Your task to perform on an android device: toggle notification dots Image 0: 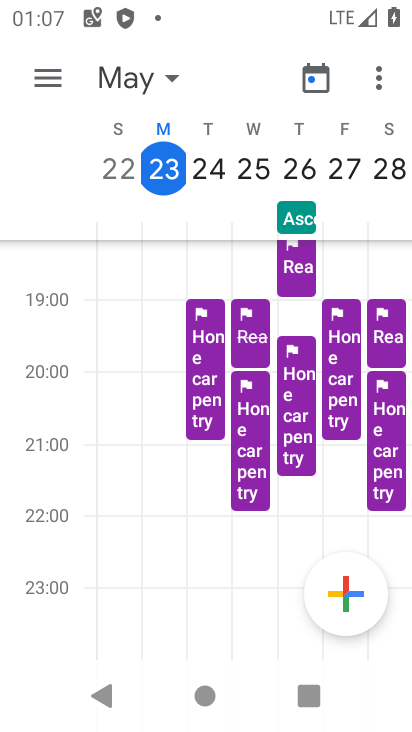
Step 0: press home button
Your task to perform on an android device: toggle notification dots Image 1: 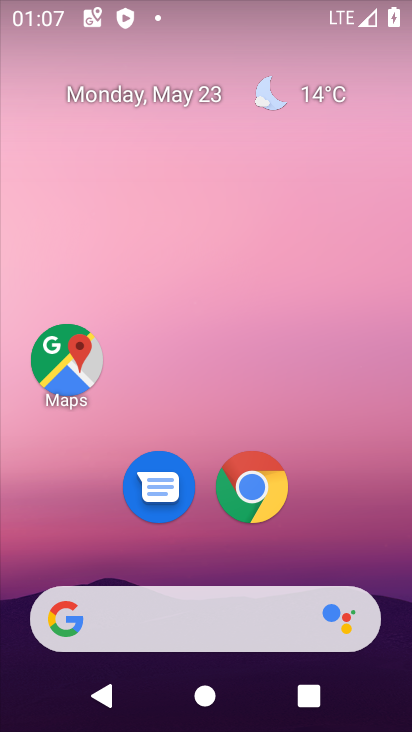
Step 1: drag from (399, 615) to (346, 68)
Your task to perform on an android device: toggle notification dots Image 2: 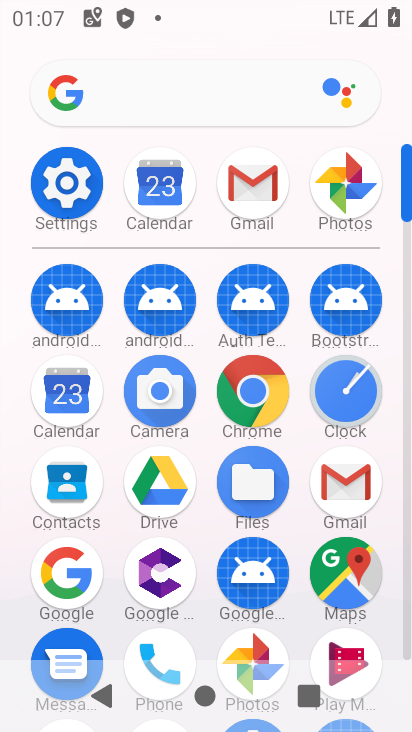
Step 2: click (410, 641)
Your task to perform on an android device: toggle notification dots Image 3: 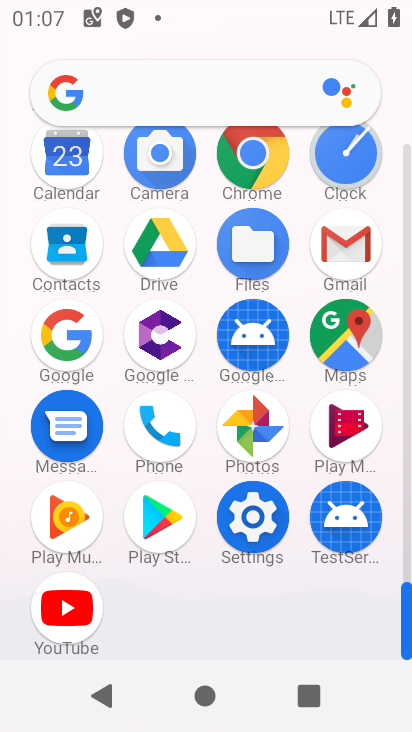
Step 3: click (253, 516)
Your task to perform on an android device: toggle notification dots Image 4: 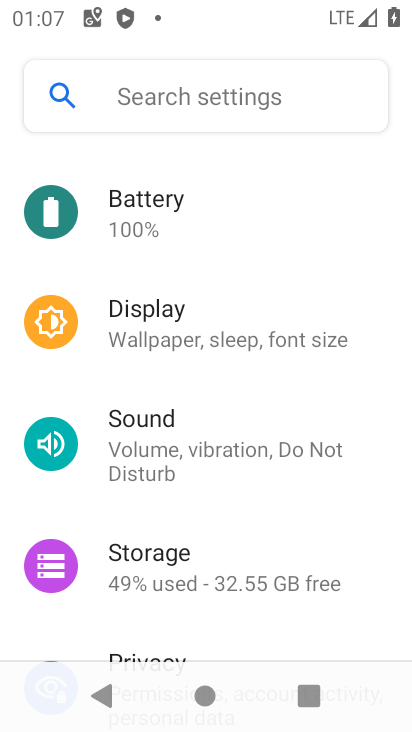
Step 4: drag from (325, 236) to (314, 574)
Your task to perform on an android device: toggle notification dots Image 5: 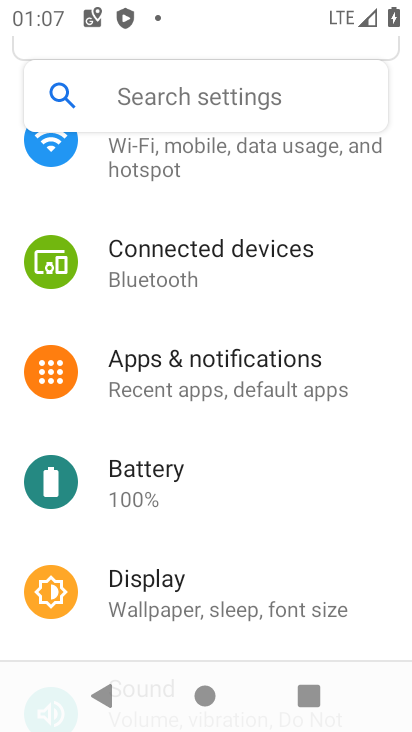
Step 5: click (176, 362)
Your task to perform on an android device: toggle notification dots Image 6: 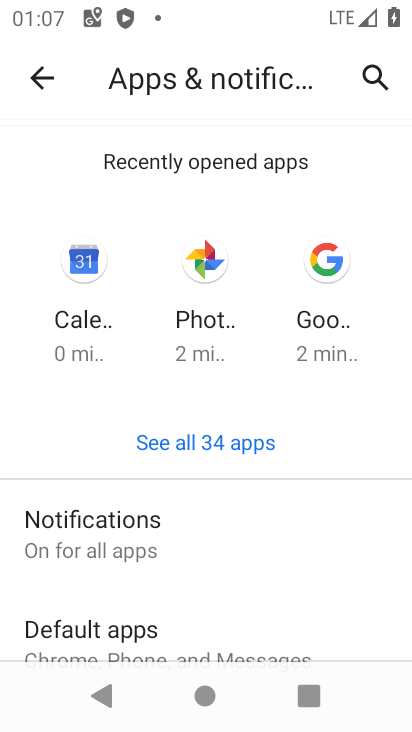
Step 6: click (87, 529)
Your task to perform on an android device: toggle notification dots Image 7: 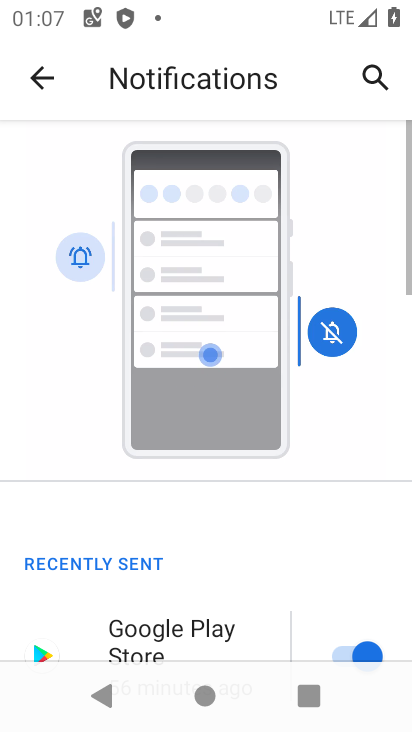
Step 7: drag from (265, 613) to (234, 117)
Your task to perform on an android device: toggle notification dots Image 8: 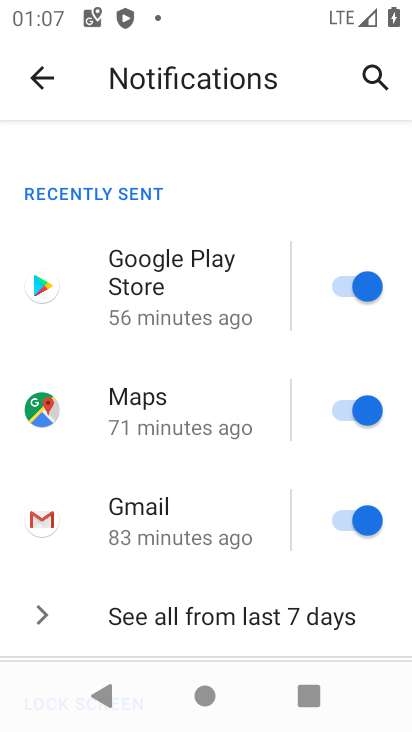
Step 8: drag from (303, 600) to (261, 105)
Your task to perform on an android device: toggle notification dots Image 9: 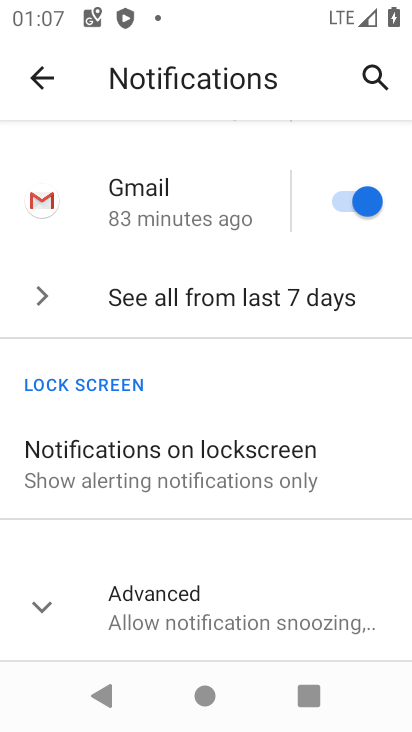
Step 9: click (37, 603)
Your task to perform on an android device: toggle notification dots Image 10: 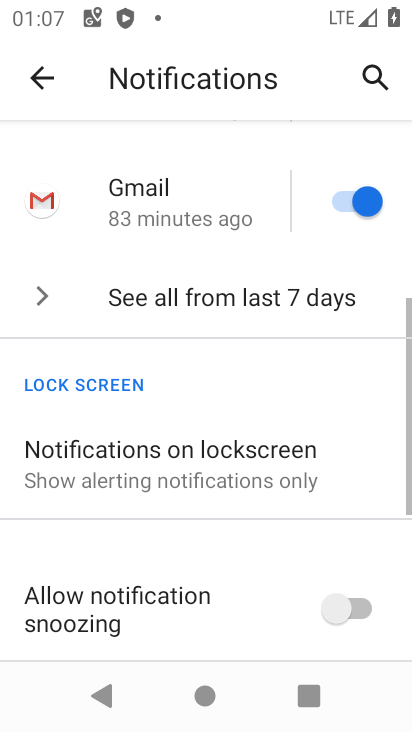
Step 10: drag from (257, 620) to (242, 175)
Your task to perform on an android device: toggle notification dots Image 11: 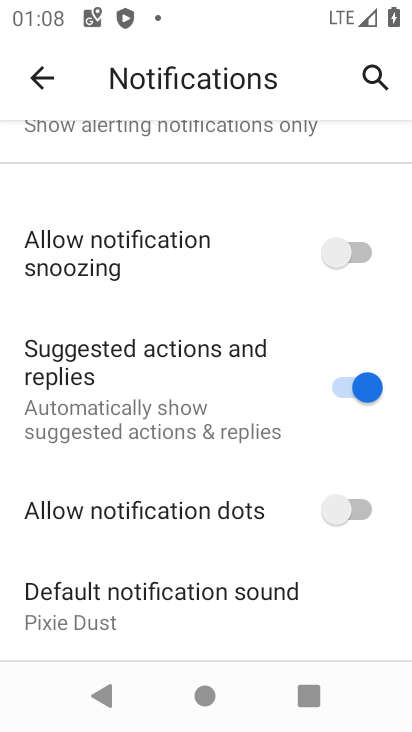
Step 11: click (364, 513)
Your task to perform on an android device: toggle notification dots Image 12: 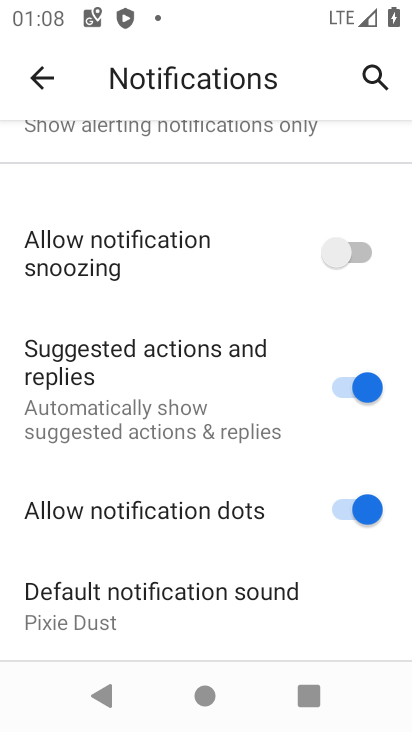
Step 12: task complete